Your task to perform on an android device: See recent photos Image 0: 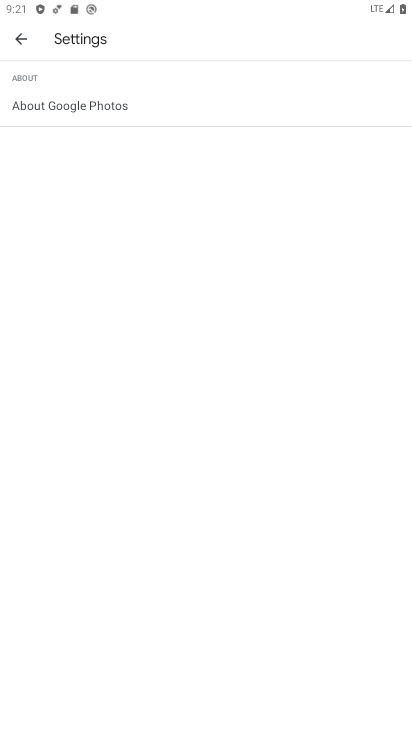
Step 0: press home button
Your task to perform on an android device: See recent photos Image 1: 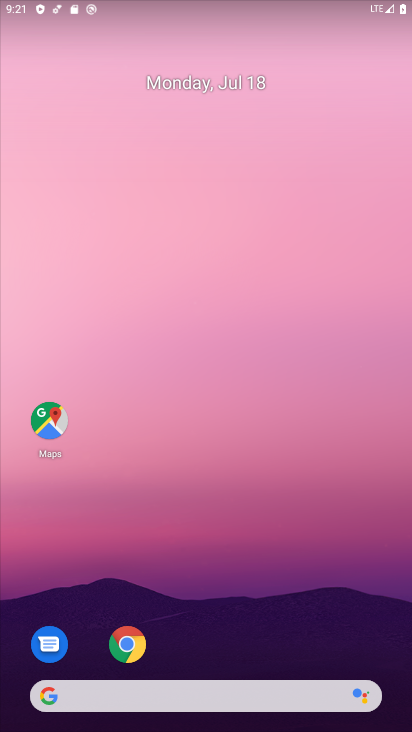
Step 1: drag from (336, 637) to (349, 169)
Your task to perform on an android device: See recent photos Image 2: 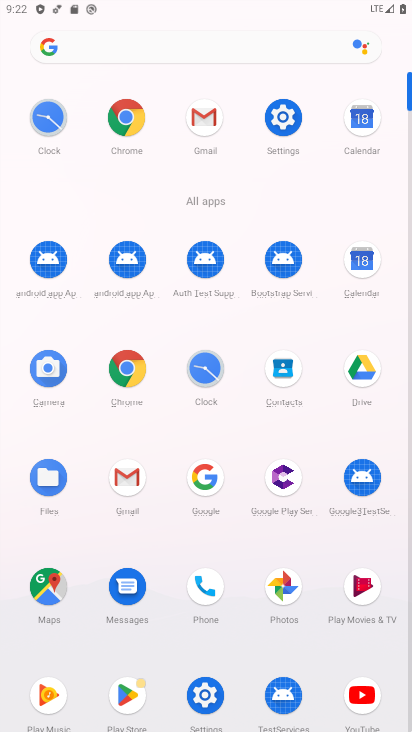
Step 2: click (289, 585)
Your task to perform on an android device: See recent photos Image 3: 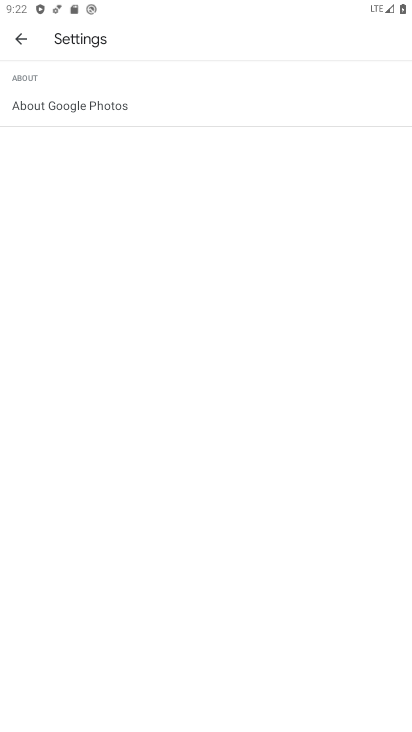
Step 3: press back button
Your task to perform on an android device: See recent photos Image 4: 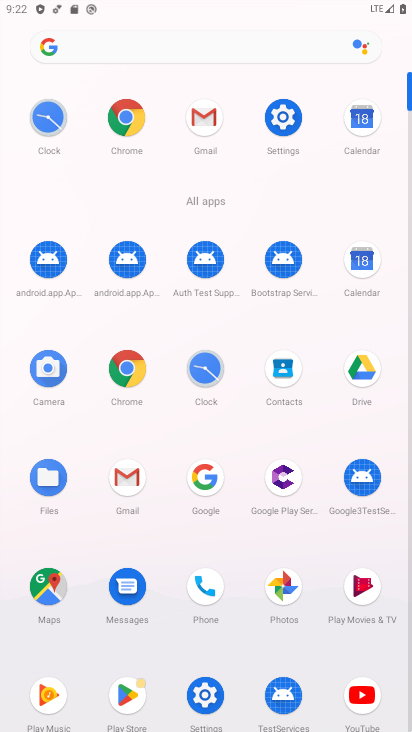
Step 4: click (282, 590)
Your task to perform on an android device: See recent photos Image 5: 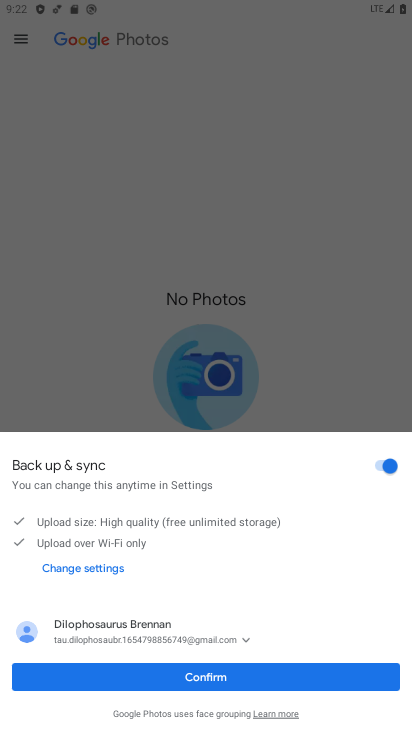
Step 5: click (266, 671)
Your task to perform on an android device: See recent photos Image 6: 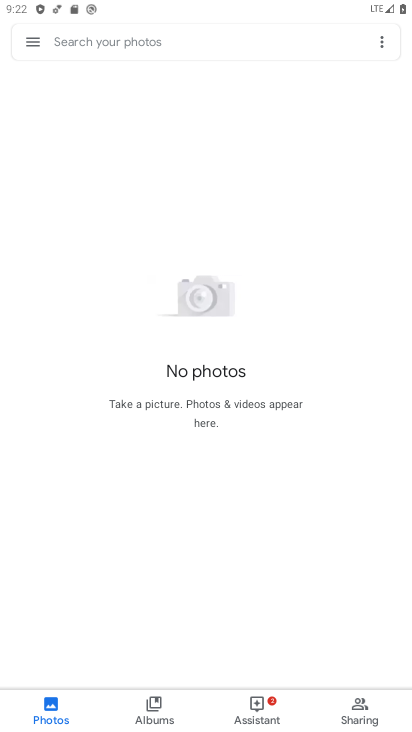
Step 6: task complete